Your task to perform on an android device: empty trash in google photos Image 0: 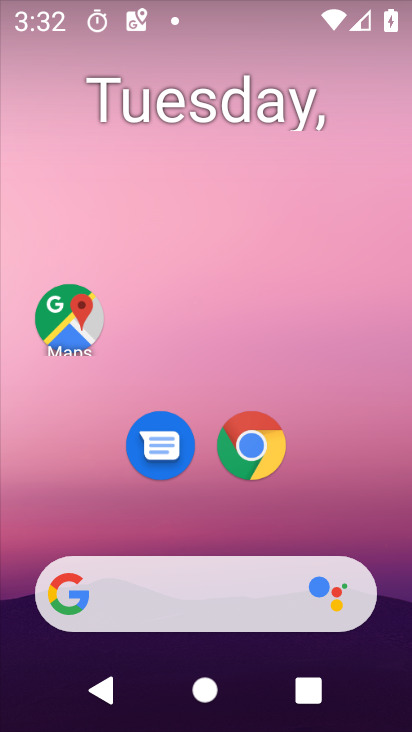
Step 0: drag from (231, 571) to (125, 15)
Your task to perform on an android device: empty trash in google photos Image 1: 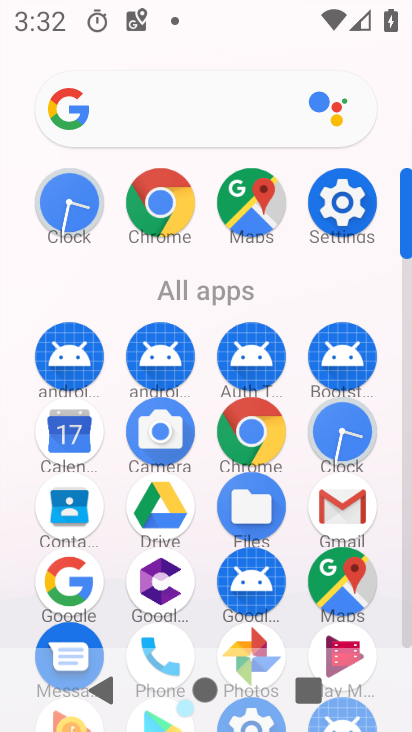
Step 1: click (248, 632)
Your task to perform on an android device: empty trash in google photos Image 2: 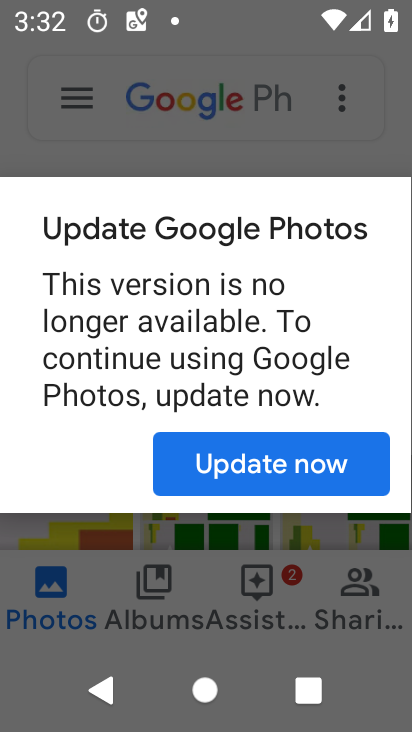
Step 2: click (230, 478)
Your task to perform on an android device: empty trash in google photos Image 3: 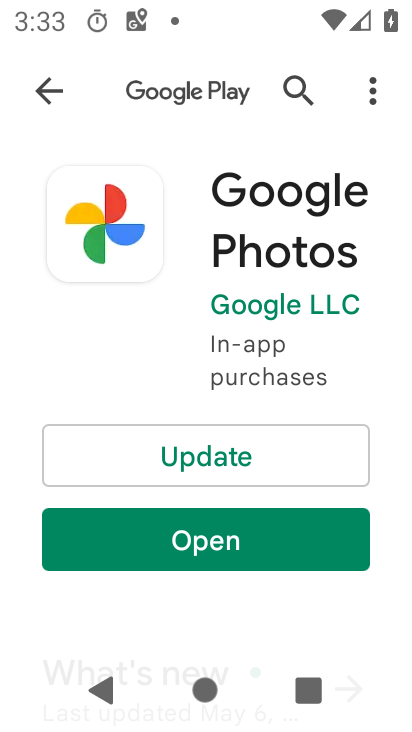
Step 3: click (275, 538)
Your task to perform on an android device: empty trash in google photos Image 4: 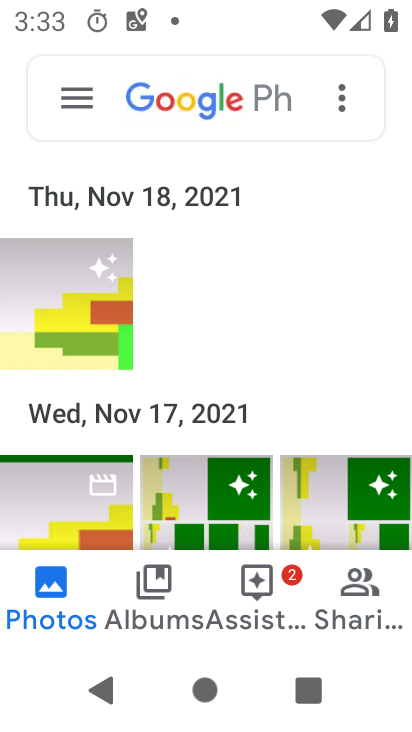
Step 4: click (85, 86)
Your task to perform on an android device: empty trash in google photos Image 5: 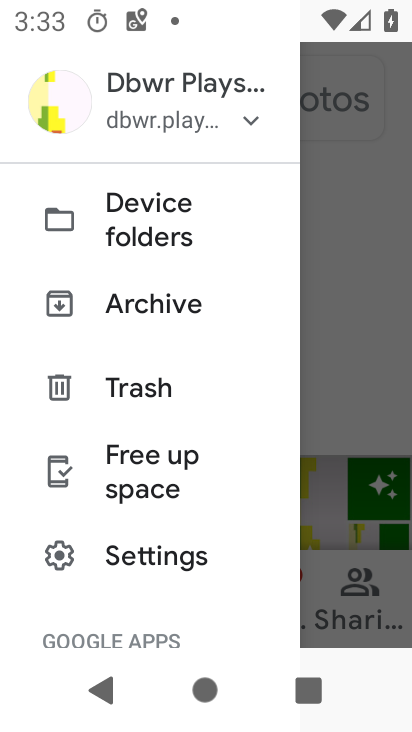
Step 5: click (140, 401)
Your task to perform on an android device: empty trash in google photos Image 6: 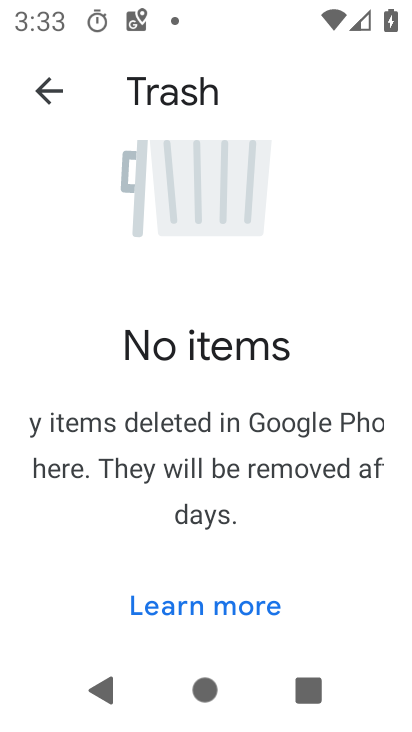
Step 6: task complete